Your task to perform on an android device: Go to Google maps Image 0: 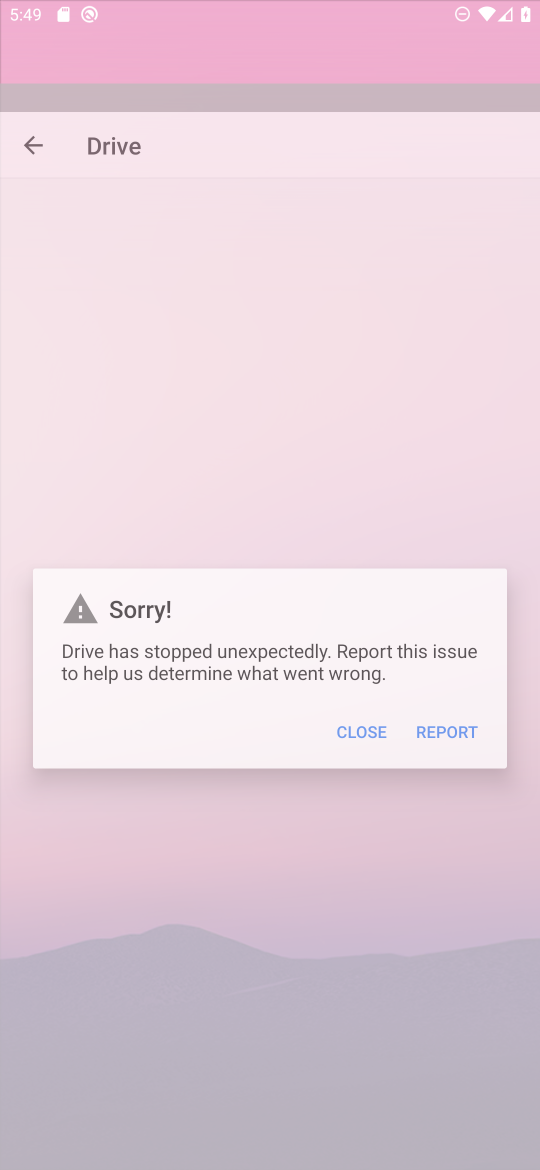
Step 0: press home button
Your task to perform on an android device: Go to Google maps Image 1: 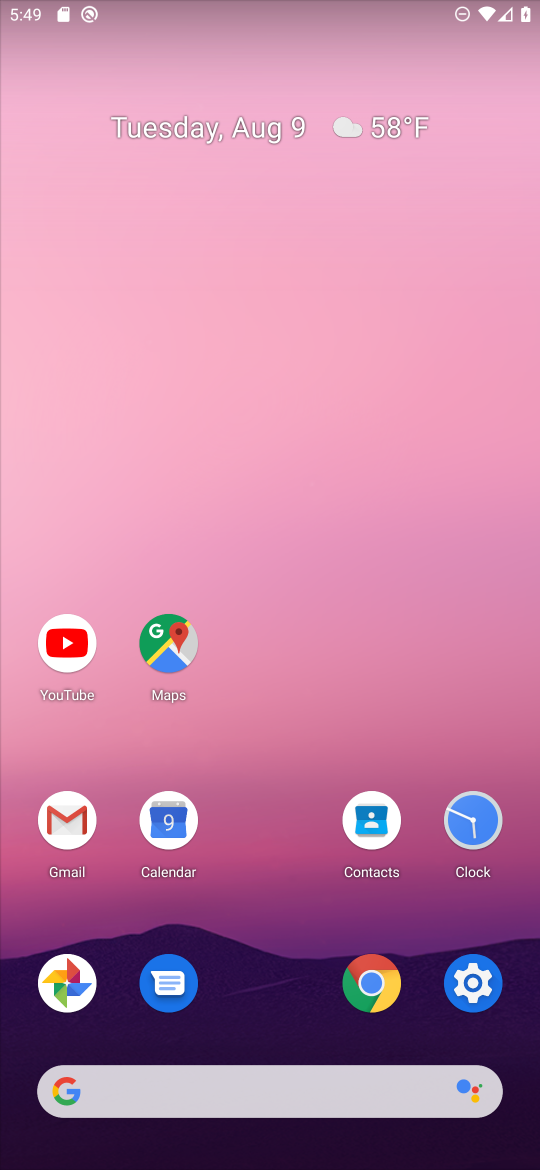
Step 1: click (171, 641)
Your task to perform on an android device: Go to Google maps Image 2: 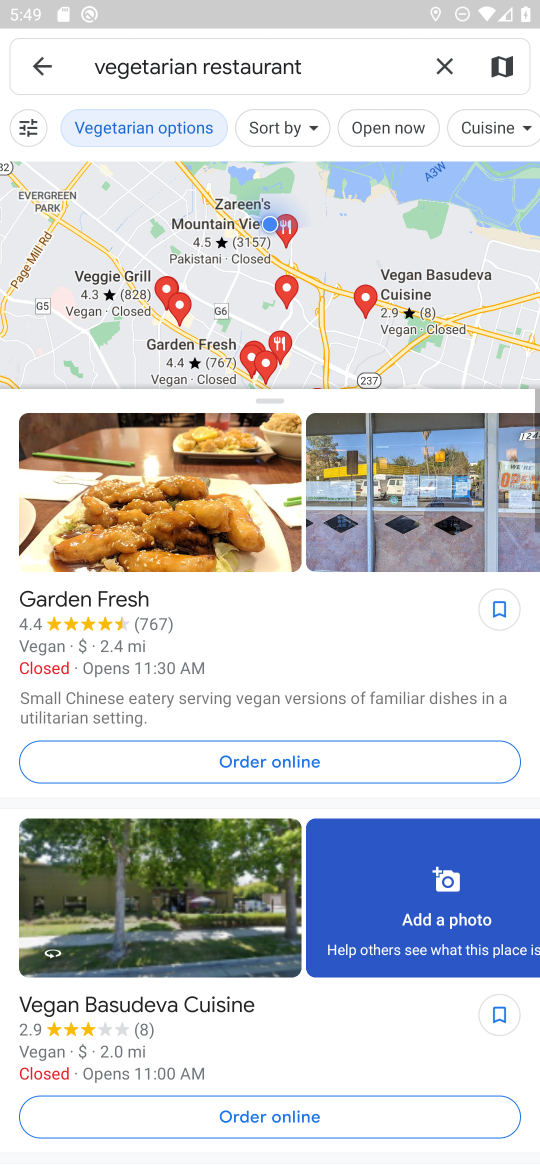
Step 2: click (38, 55)
Your task to perform on an android device: Go to Google maps Image 3: 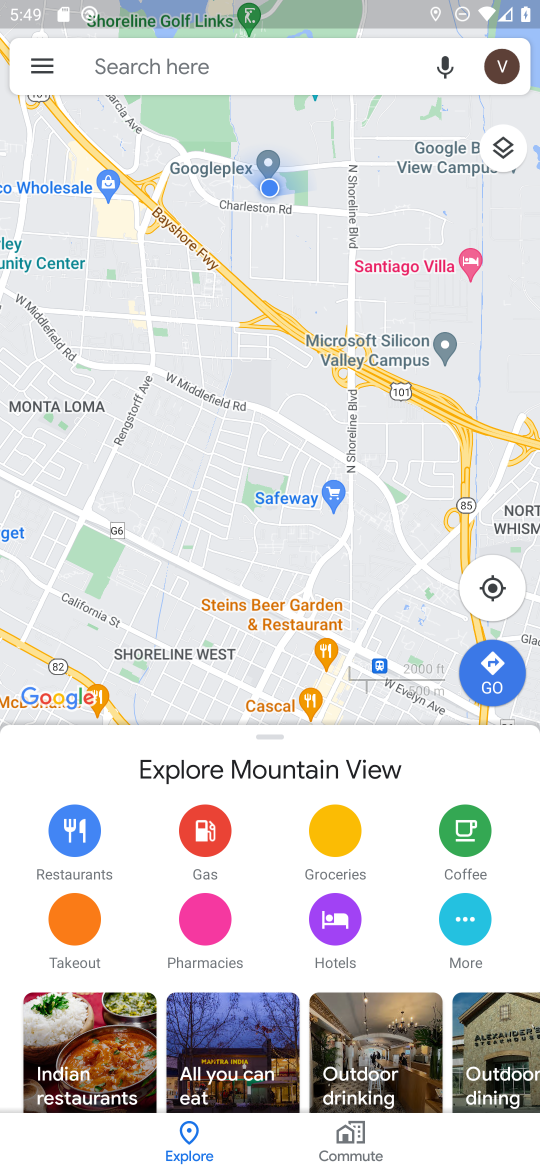
Step 3: task complete